Your task to perform on an android device: Open display settings Image 0: 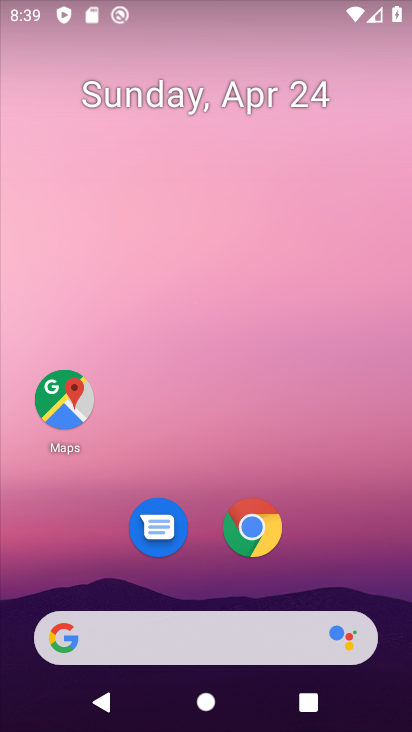
Step 0: drag from (369, 561) to (174, 91)
Your task to perform on an android device: Open display settings Image 1: 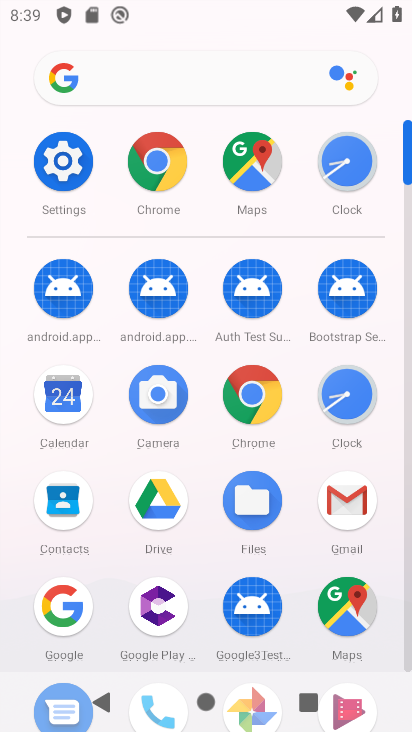
Step 1: click (64, 149)
Your task to perform on an android device: Open display settings Image 2: 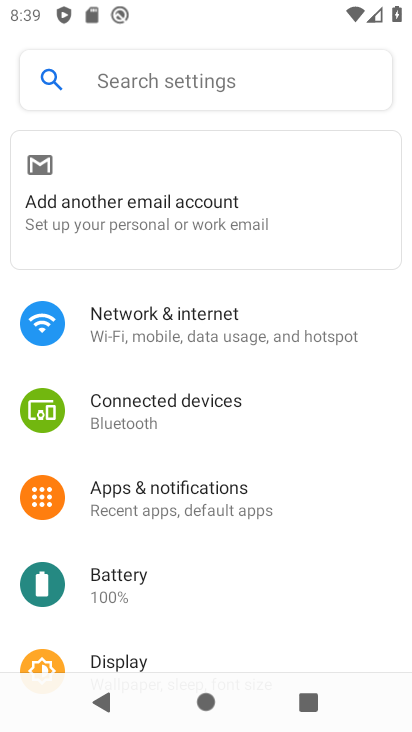
Step 2: click (100, 652)
Your task to perform on an android device: Open display settings Image 3: 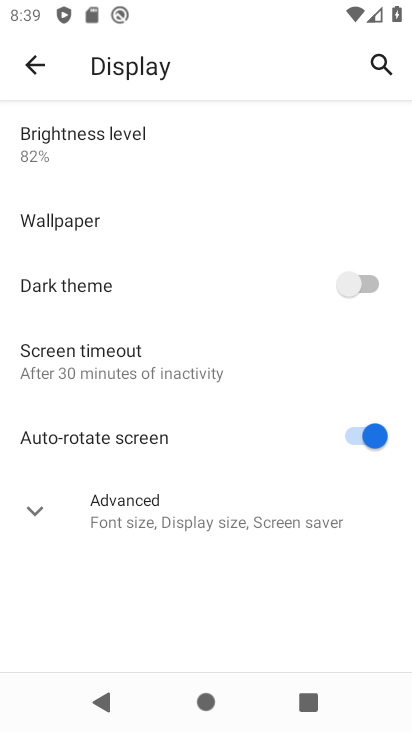
Step 3: task complete